Your task to perform on an android device: Open accessibility settings Image 0: 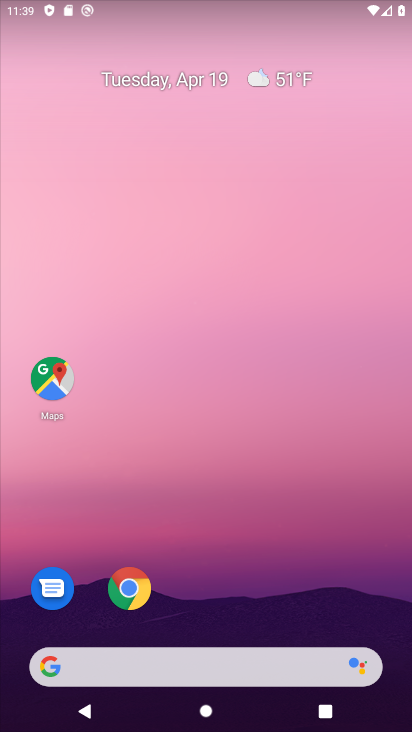
Step 0: press home button
Your task to perform on an android device: Open accessibility settings Image 1: 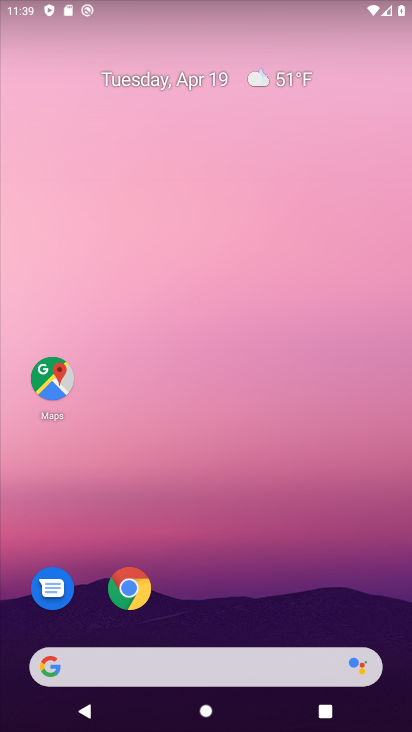
Step 1: drag from (230, 611) to (265, 227)
Your task to perform on an android device: Open accessibility settings Image 2: 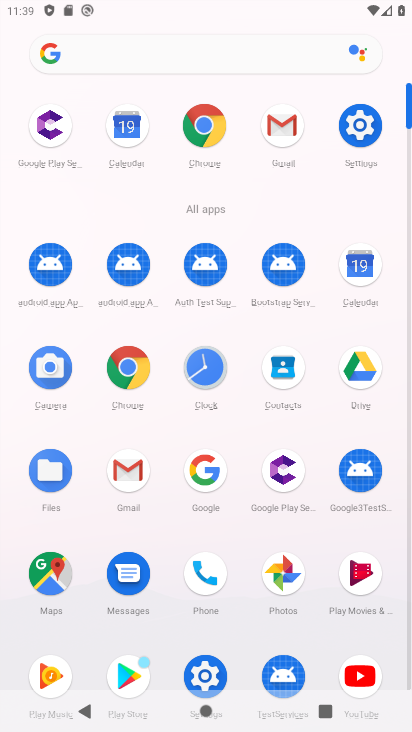
Step 2: click (204, 675)
Your task to perform on an android device: Open accessibility settings Image 3: 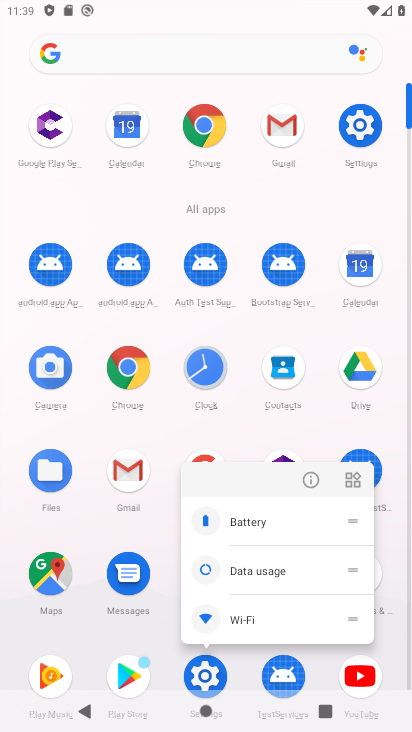
Step 3: click (207, 671)
Your task to perform on an android device: Open accessibility settings Image 4: 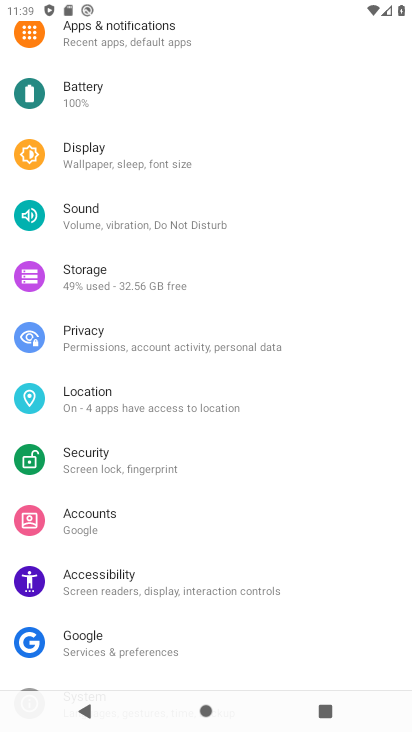
Step 4: click (123, 577)
Your task to perform on an android device: Open accessibility settings Image 5: 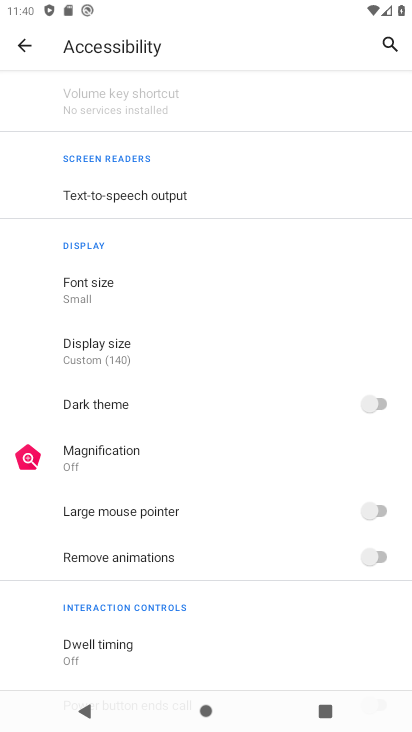
Step 5: task complete